Your task to perform on an android device: open chrome privacy settings Image 0: 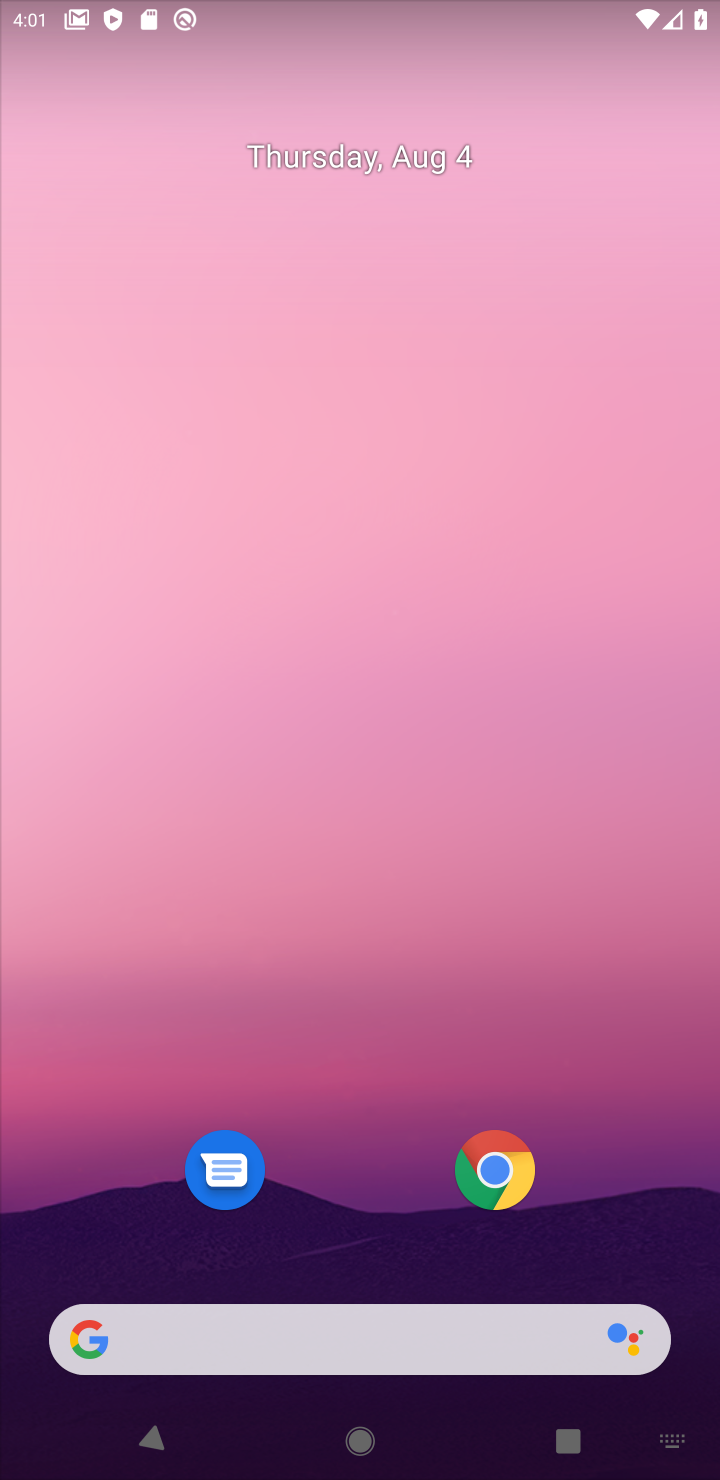
Step 0: click (514, 1186)
Your task to perform on an android device: open chrome privacy settings Image 1: 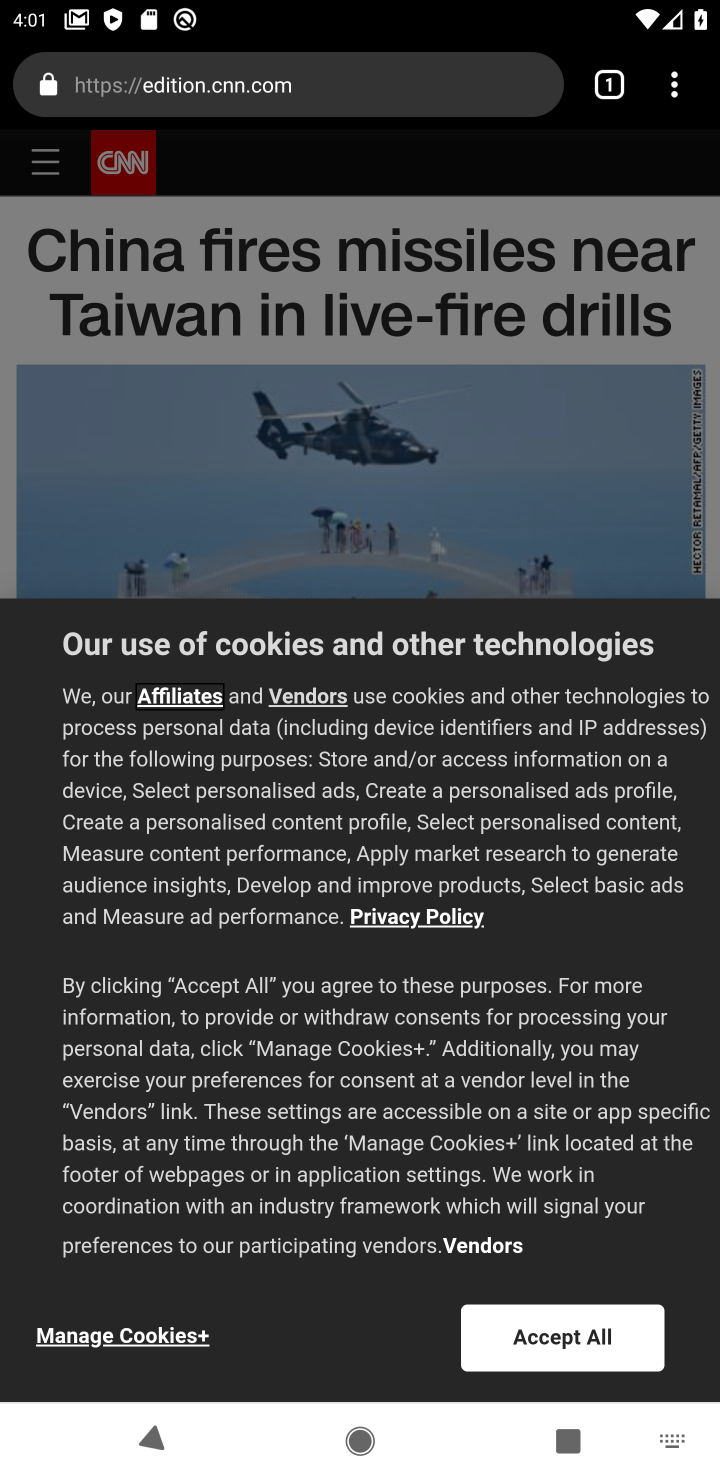
Step 1: click (677, 103)
Your task to perform on an android device: open chrome privacy settings Image 2: 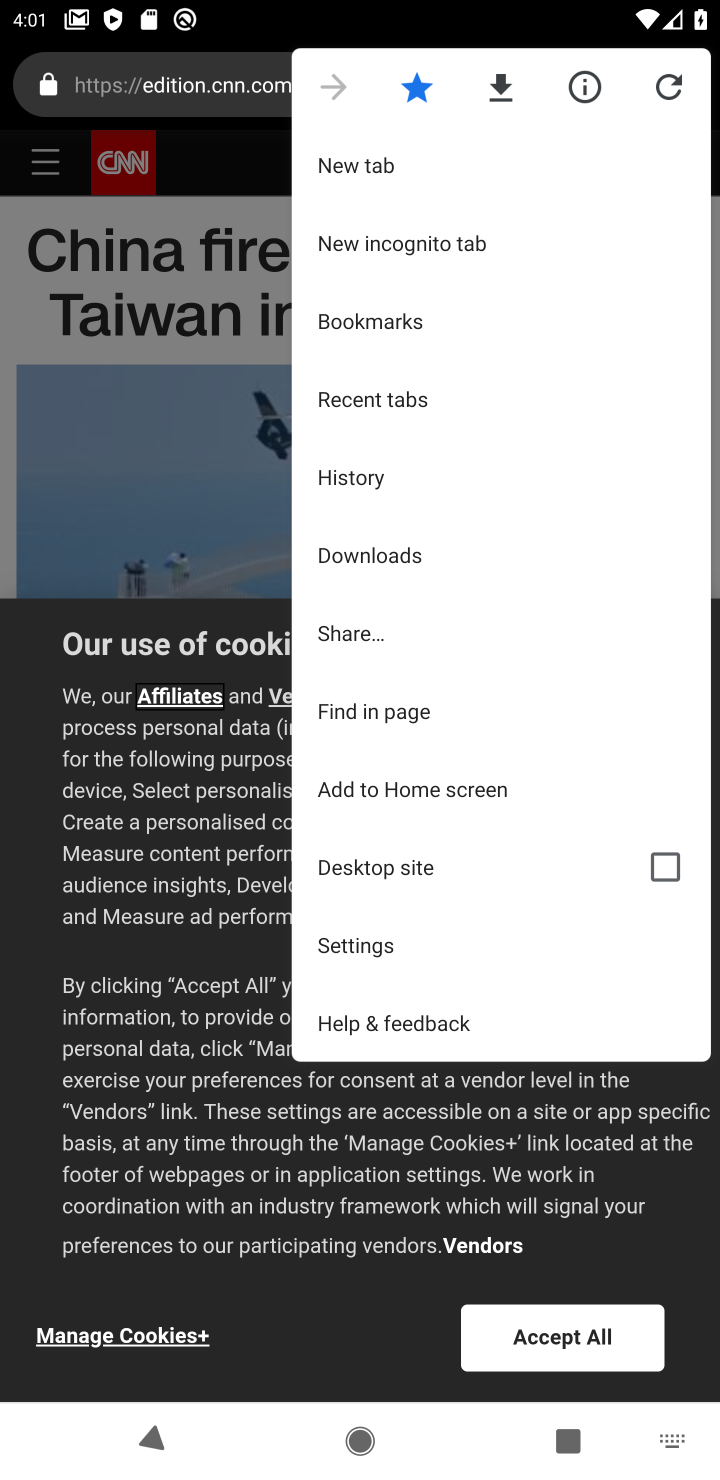
Step 2: click (461, 936)
Your task to perform on an android device: open chrome privacy settings Image 3: 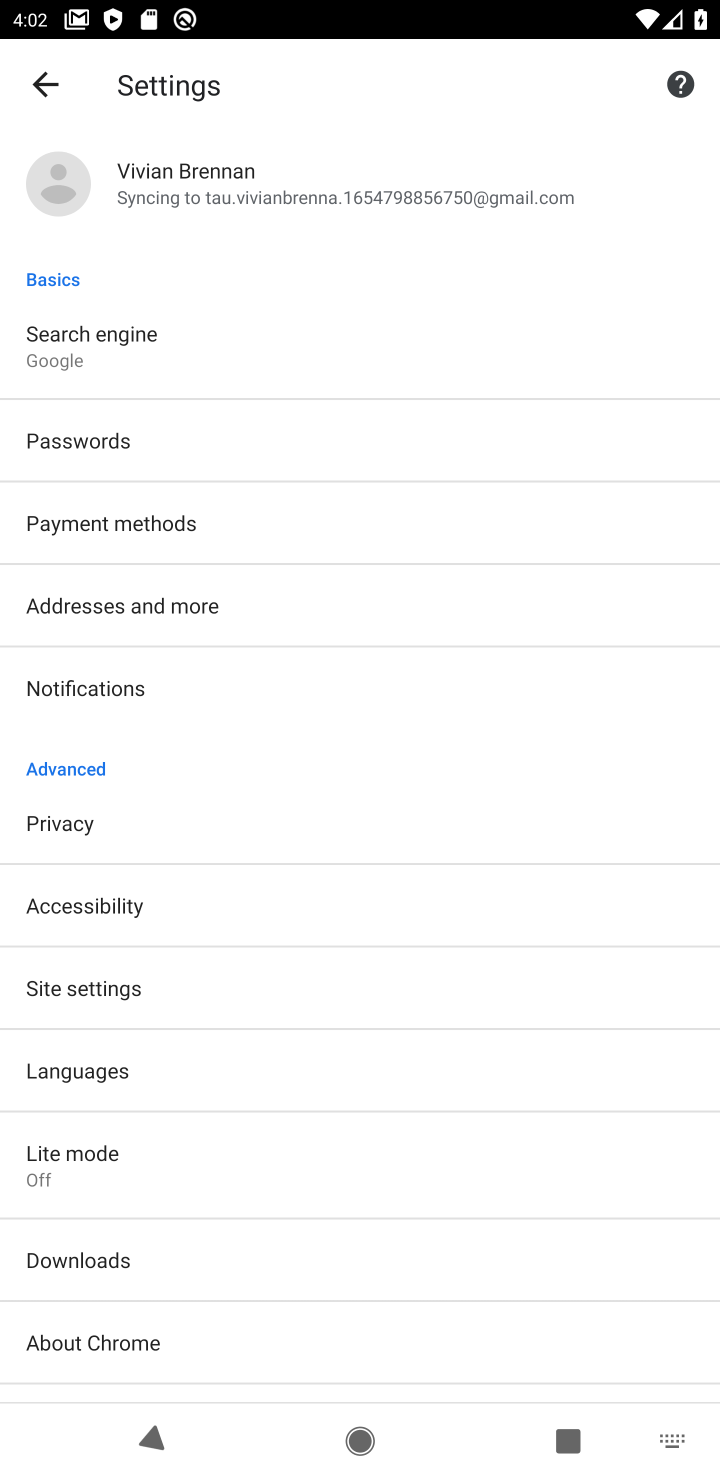
Step 3: click (280, 828)
Your task to perform on an android device: open chrome privacy settings Image 4: 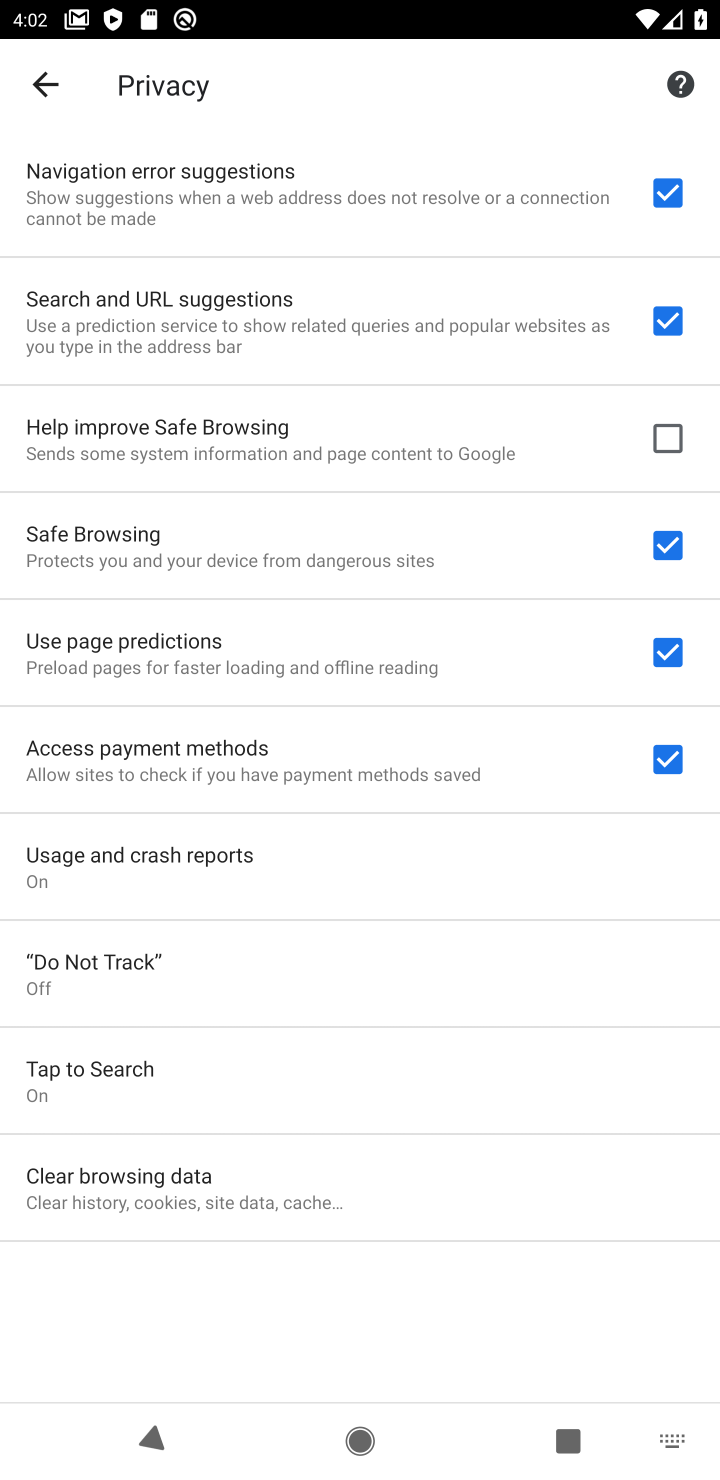
Step 4: task complete